Your task to perform on an android device: toggle improve location accuracy Image 0: 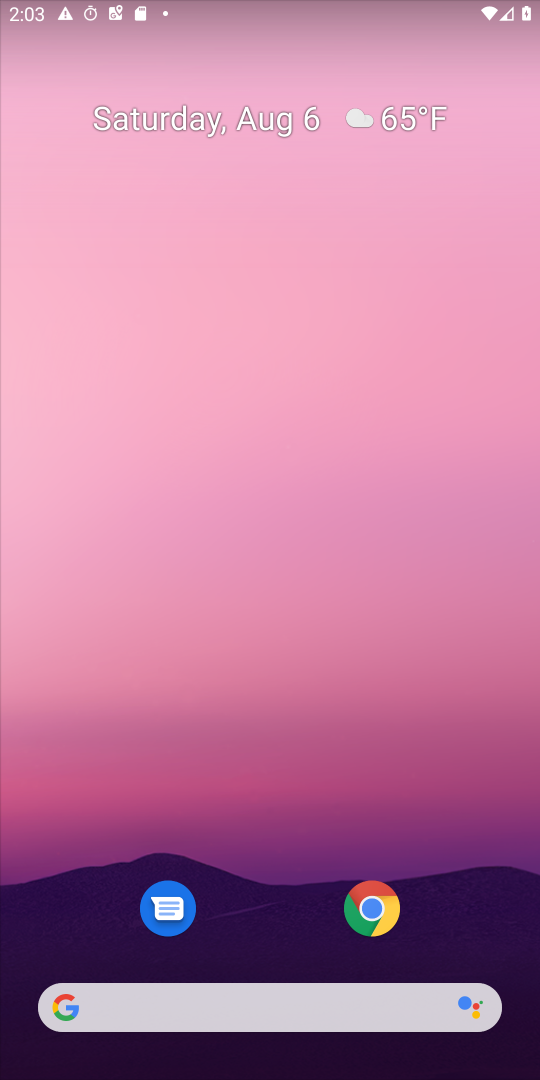
Step 0: drag from (251, 944) to (309, 272)
Your task to perform on an android device: toggle improve location accuracy Image 1: 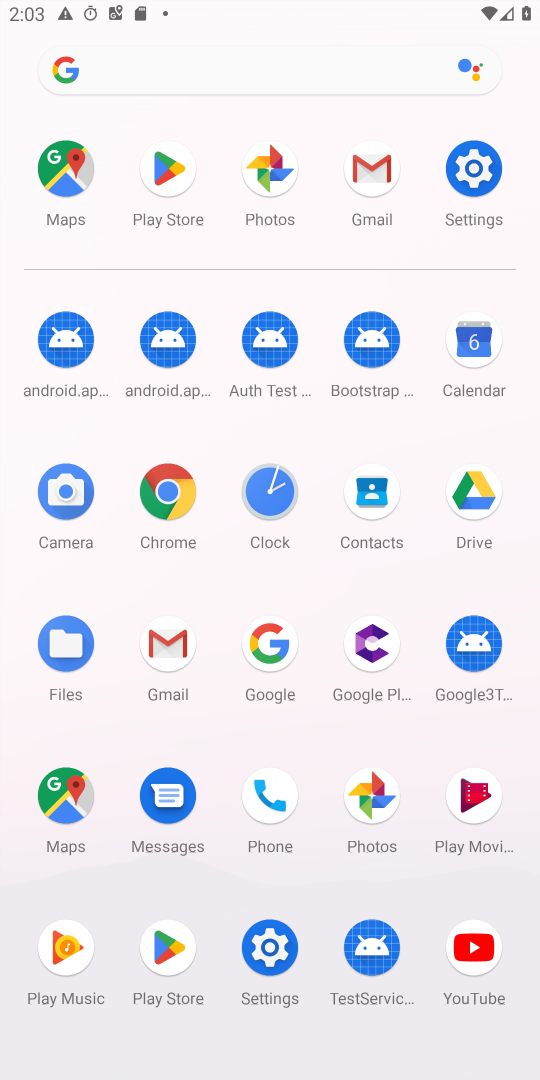
Step 1: click (252, 959)
Your task to perform on an android device: toggle improve location accuracy Image 2: 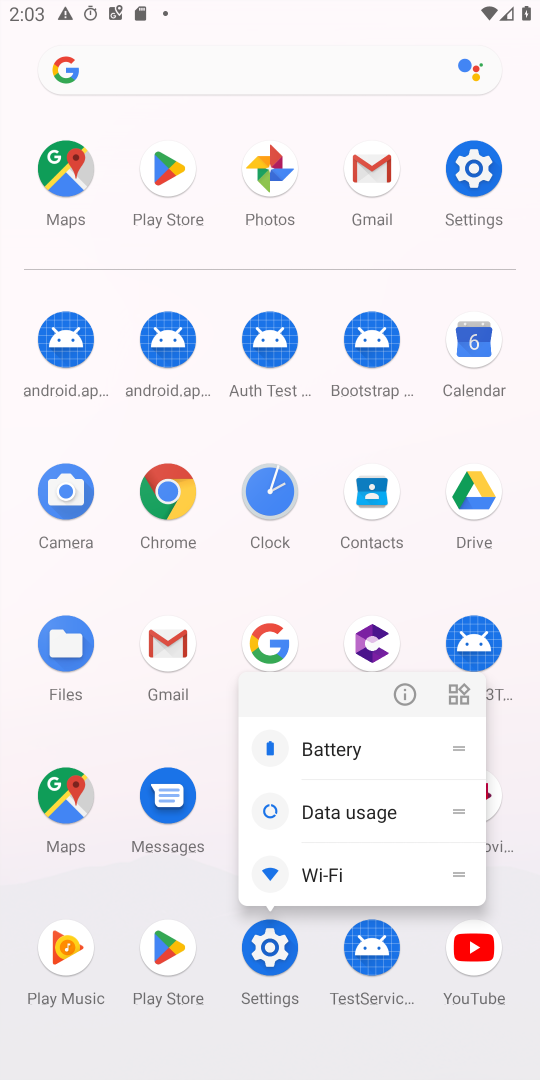
Step 2: click (268, 948)
Your task to perform on an android device: toggle improve location accuracy Image 3: 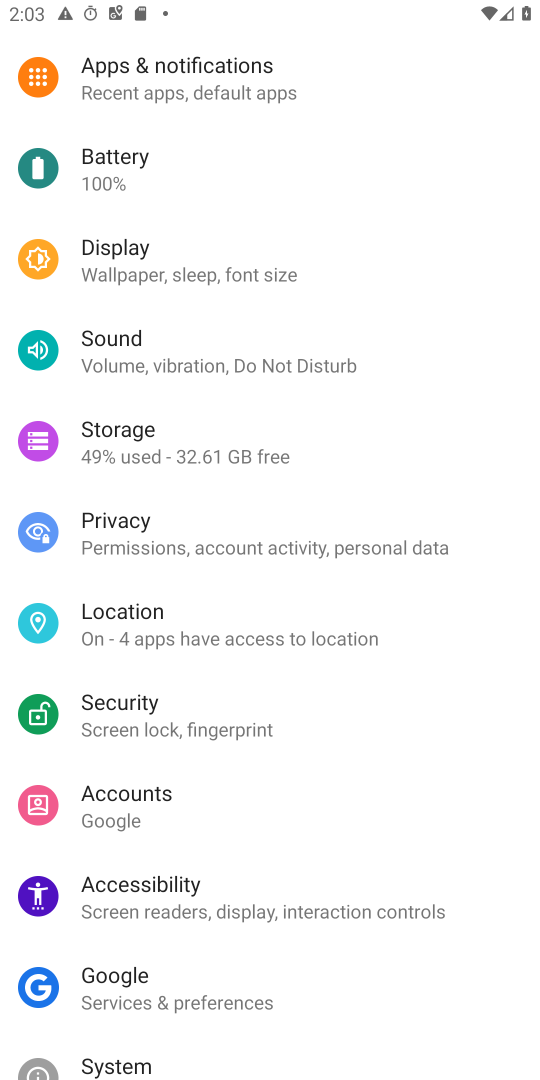
Step 3: click (173, 622)
Your task to perform on an android device: toggle improve location accuracy Image 4: 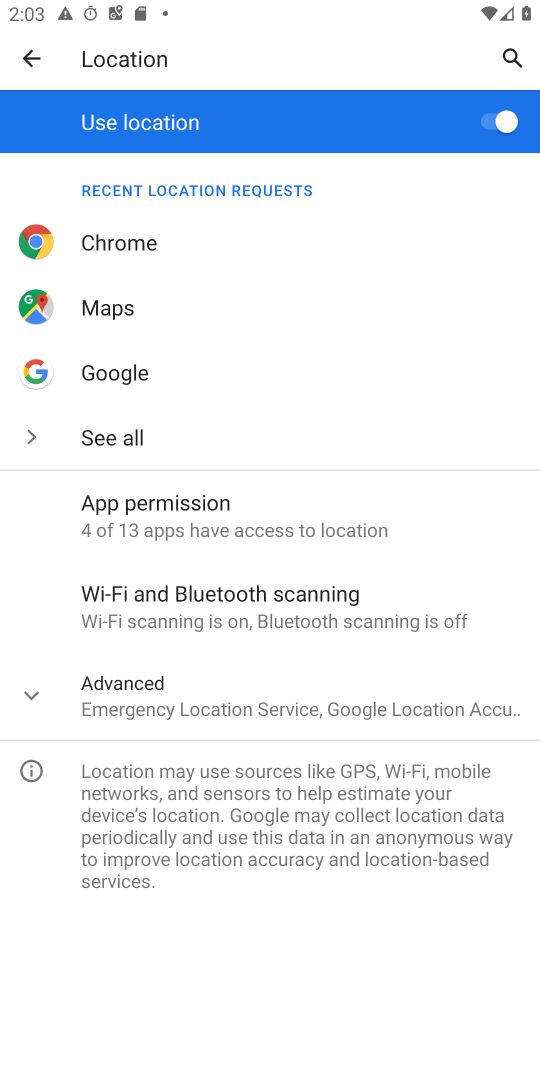
Step 4: click (328, 697)
Your task to perform on an android device: toggle improve location accuracy Image 5: 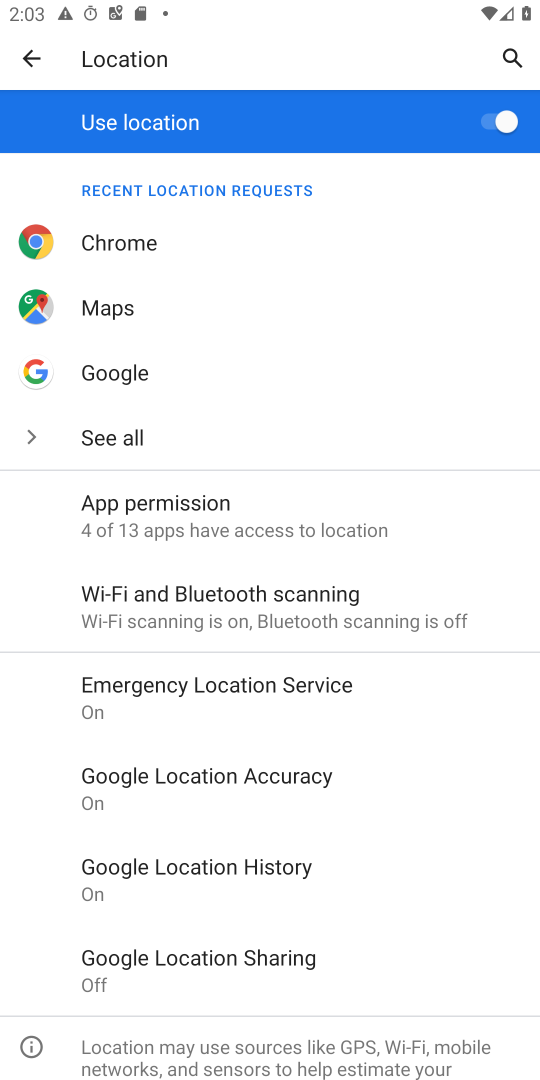
Step 5: click (313, 794)
Your task to perform on an android device: toggle improve location accuracy Image 6: 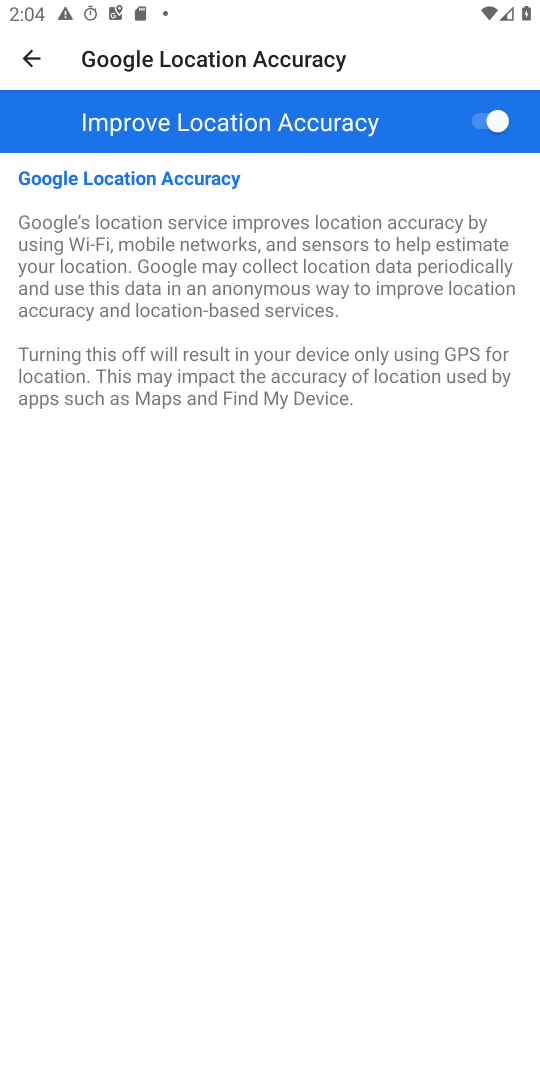
Step 6: click (499, 116)
Your task to perform on an android device: toggle improve location accuracy Image 7: 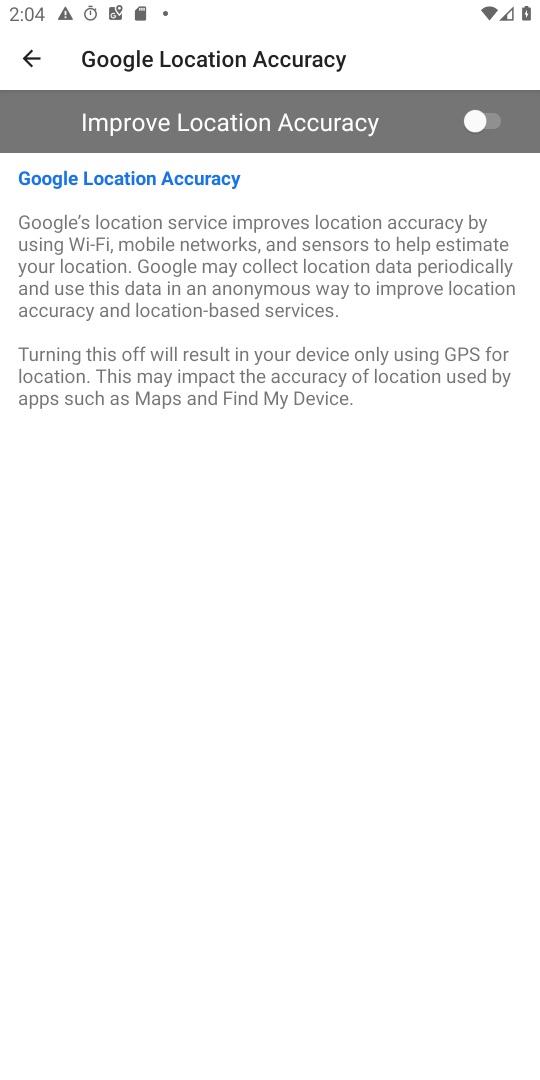
Step 7: task complete